Your task to perform on an android device: turn pop-ups on in chrome Image 0: 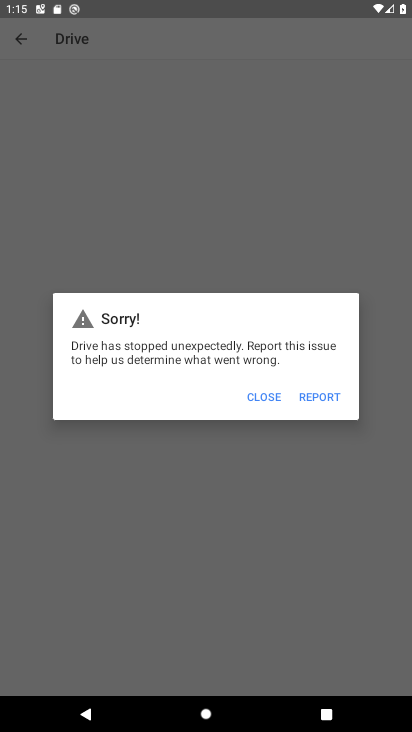
Step 0: click (313, 399)
Your task to perform on an android device: turn pop-ups on in chrome Image 1: 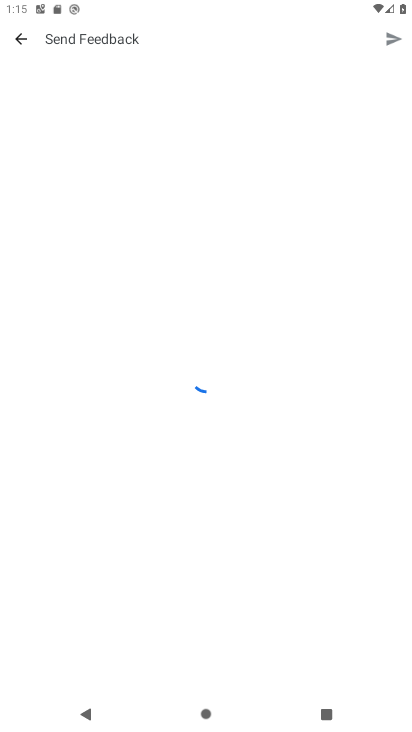
Step 1: click (396, 35)
Your task to perform on an android device: turn pop-ups on in chrome Image 2: 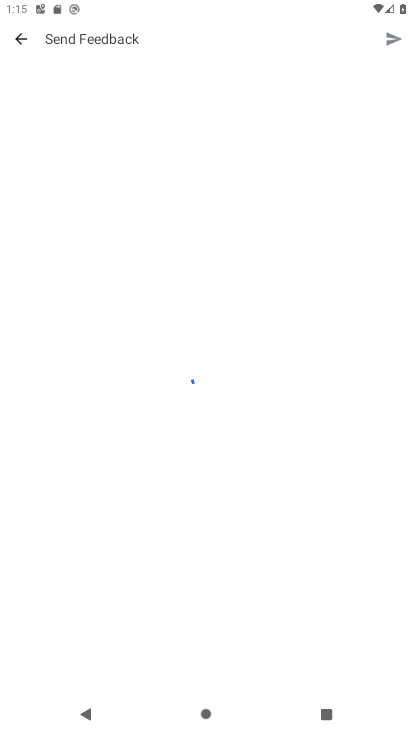
Step 2: click (396, 35)
Your task to perform on an android device: turn pop-ups on in chrome Image 3: 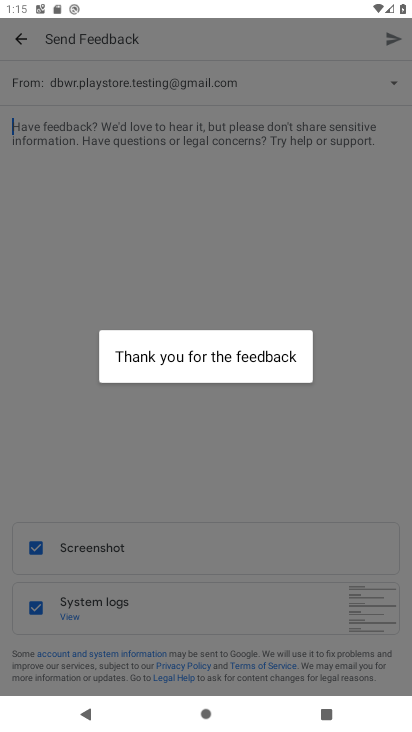
Step 3: click (396, 35)
Your task to perform on an android device: turn pop-ups on in chrome Image 4: 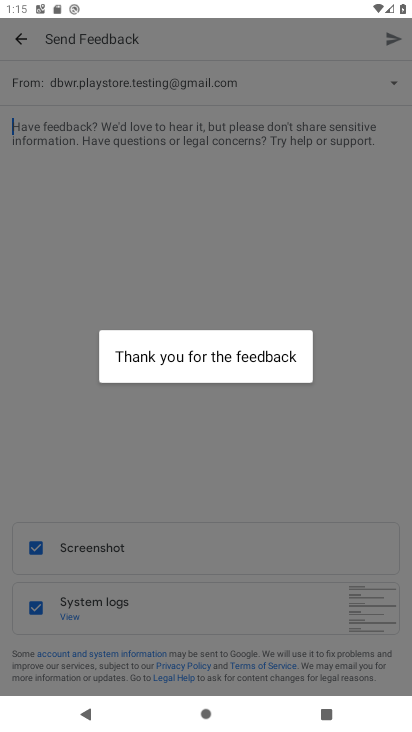
Step 4: click (212, 729)
Your task to perform on an android device: turn pop-ups on in chrome Image 5: 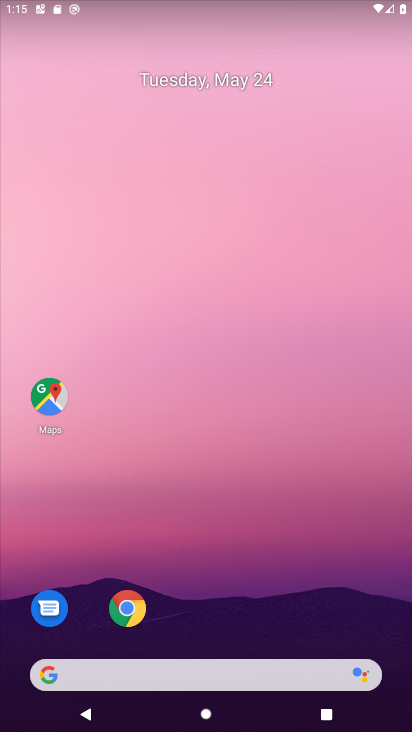
Step 5: drag from (206, 596) to (219, 220)
Your task to perform on an android device: turn pop-ups on in chrome Image 6: 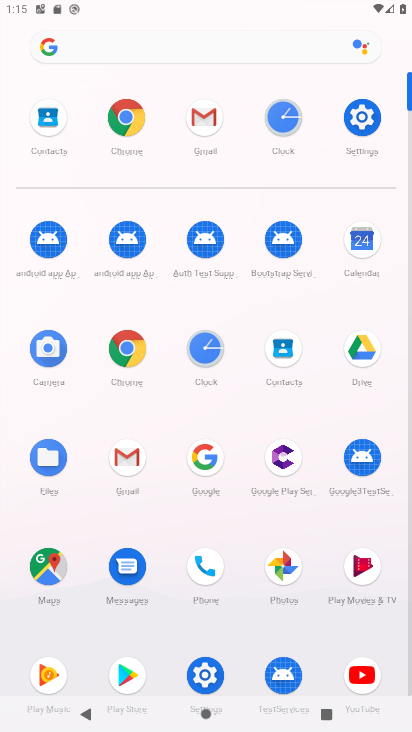
Step 6: click (137, 143)
Your task to perform on an android device: turn pop-ups on in chrome Image 7: 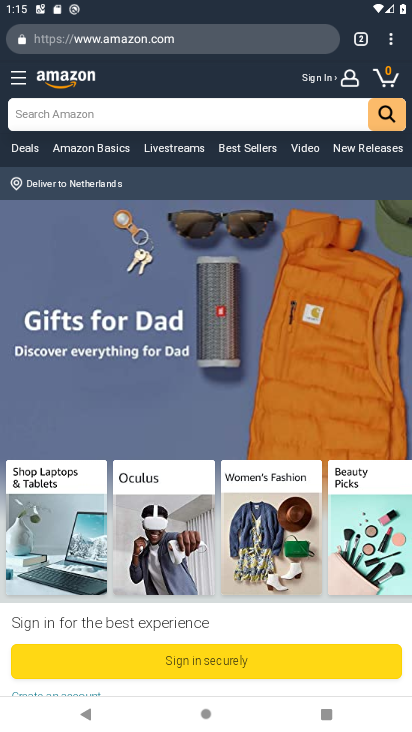
Step 7: click (395, 44)
Your task to perform on an android device: turn pop-ups on in chrome Image 8: 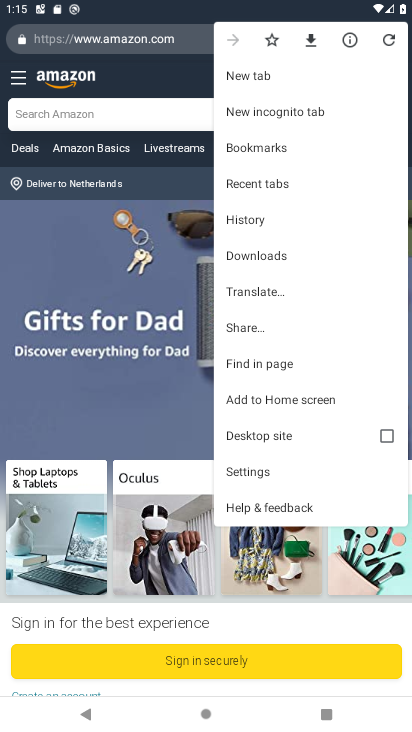
Step 8: drag from (293, 86) to (287, 390)
Your task to perform on an android device: turn pop-ups on in chrome Image 9: 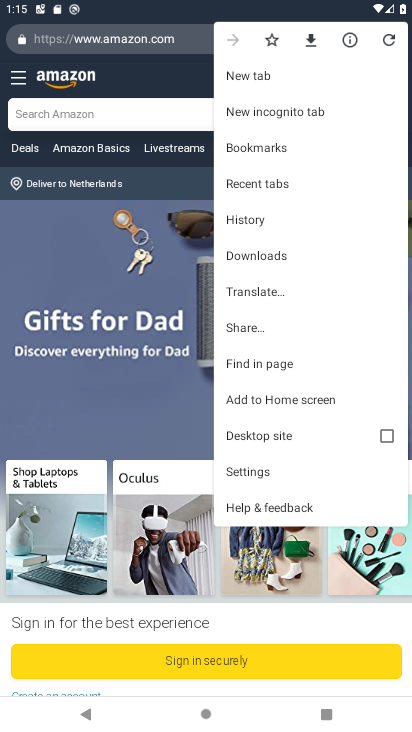
Step 9: click (271, 476)
Your task to perform on an android device: turn pop-ups on in chrome Image 10: 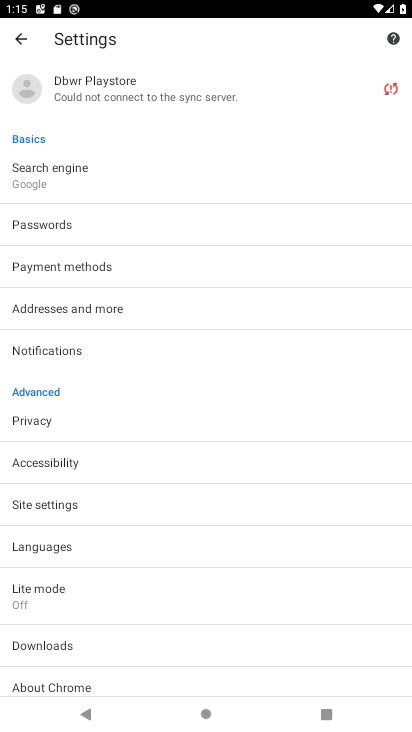
Step 10: drag from (179, 610) to (201, 440)
Your task to perform on an android device: turn pop-ups on in chrome Image 11: 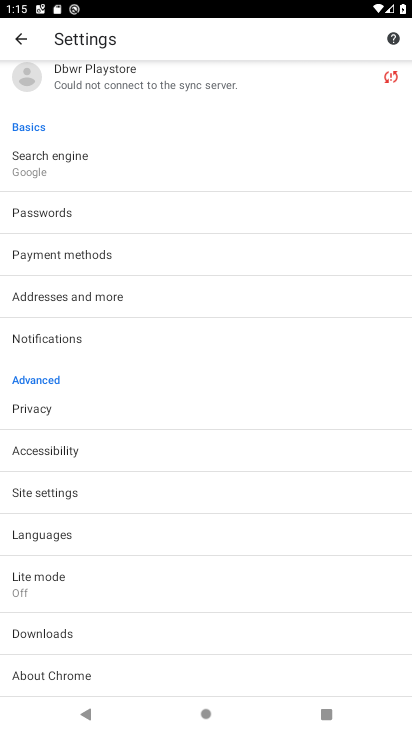
Step 11: click (146, 498)
Your task to perform on an android device: turn pop-ups on in chrome Image 12: 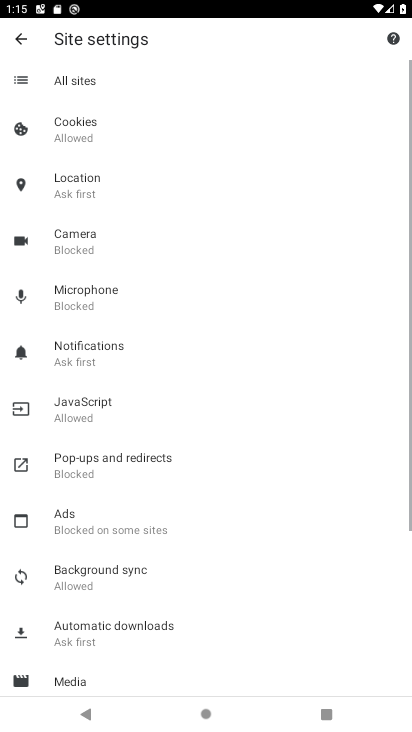
Step 12: drag from (169, 637) to (176, 514)
Your task to perform on an android device: turn pop-ups on in chrome Image 13: 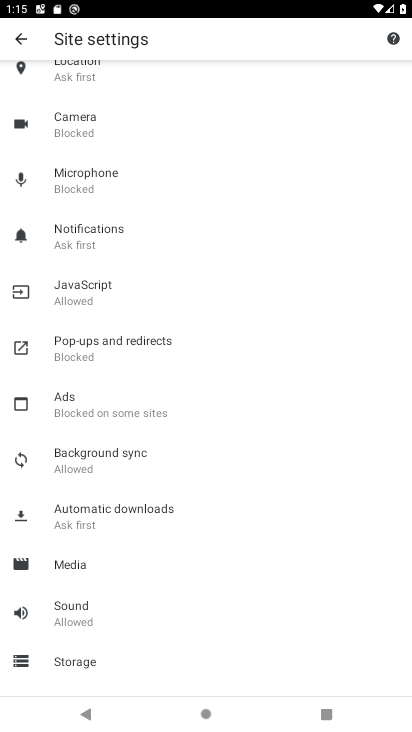
Step 13: click (237, 361)
Your task to perform on an android device: turn pop-ups on in chrome Image 14: 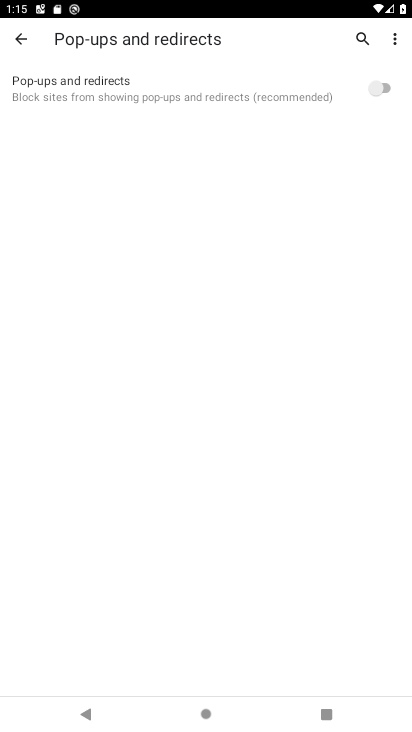
Step 14: click (387, 80)
Your task to perform on an android device: turn pop-ups on in chrome Image 15: 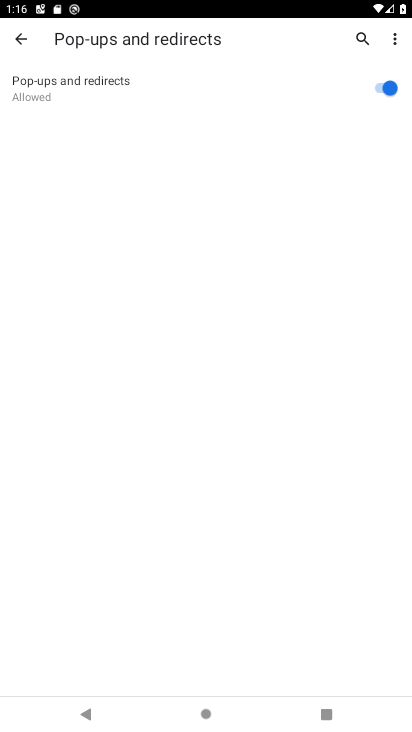
Step 15: task complete